Your task to perform on an android device: What's the weather going to be this weekend? Image 0: 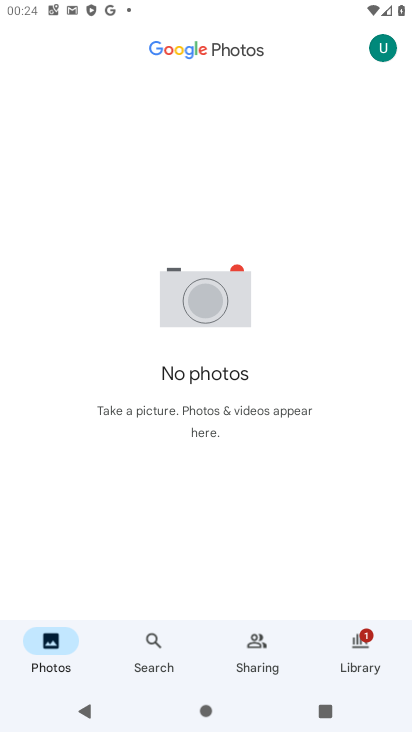
Step 0: press home button
Your task to perform on an android device: What's the weather going to be this weekend? Image 1: 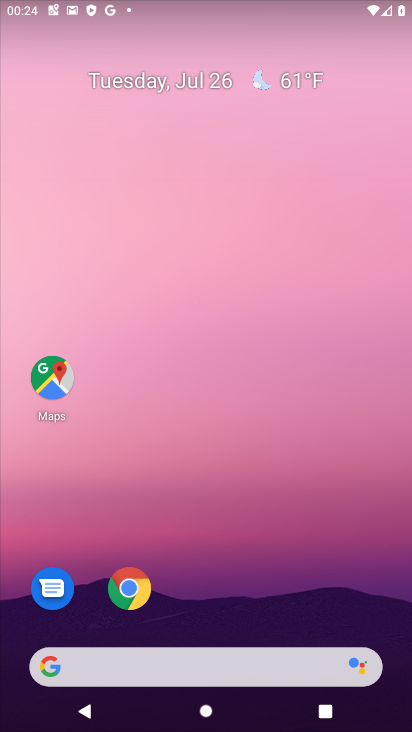
Step 1: click (182, 659)
Your task to perform on an android device: What's the weather going to be this weekend? Image 2: 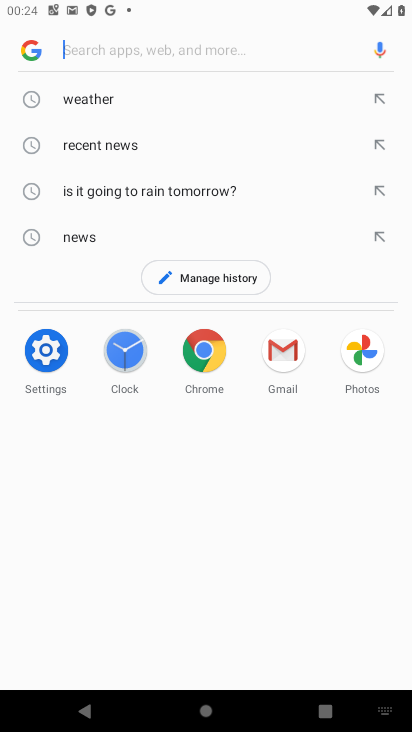
Step 2: click (120, 91)
Your task to perform on an android device: What's the weather going to be this weekend? Image 3: 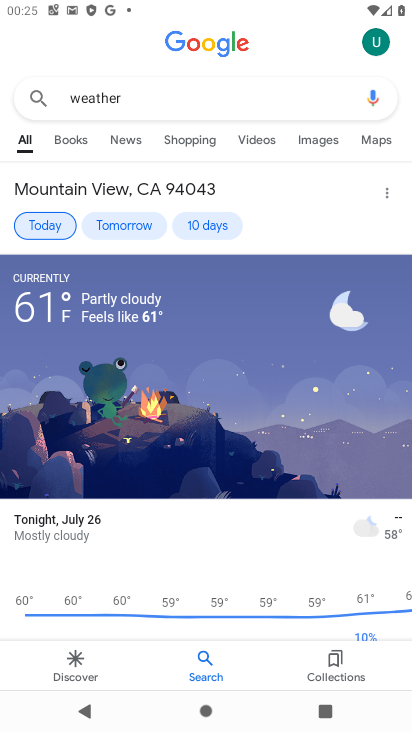
Step 3: drag from (237, 578) to (249, 302)
Your task to perform on an android device: What's the weather going to be this weekend? Image 4: 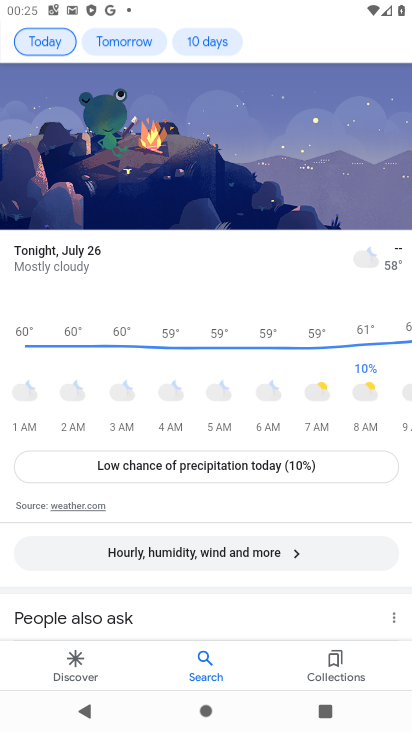
Step 4: click (195, 34)
Your task to perform on an android device: What's the weather going to be this weekend? Image 5: 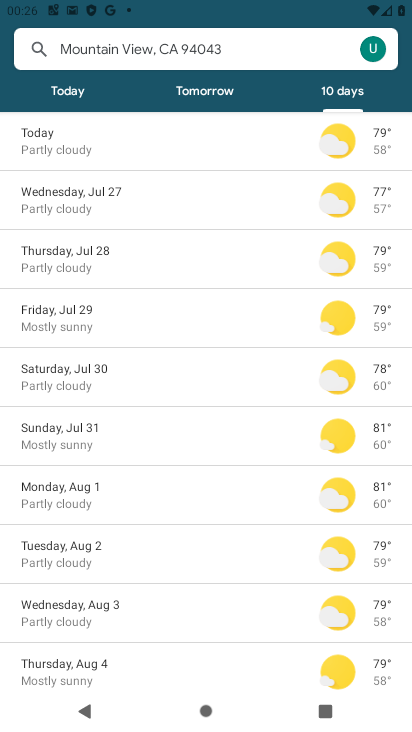
Step 5: task complete